Your task to perform on an android device: turn off translation in the chrome app Image 0: 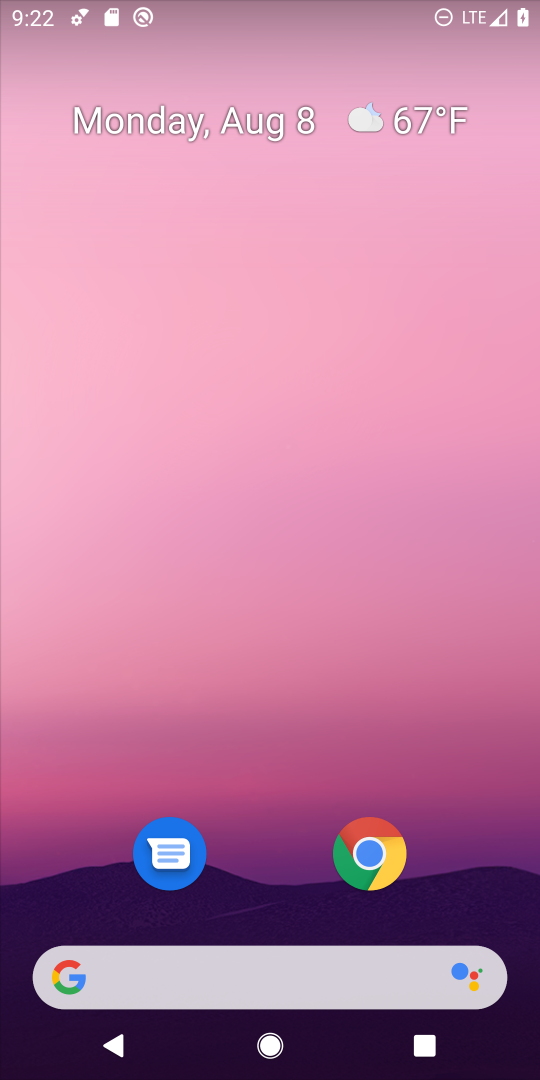
Step 0: click (373, 852)
Your task to perform on an android device: turn off translation in the chrome app Image 1: 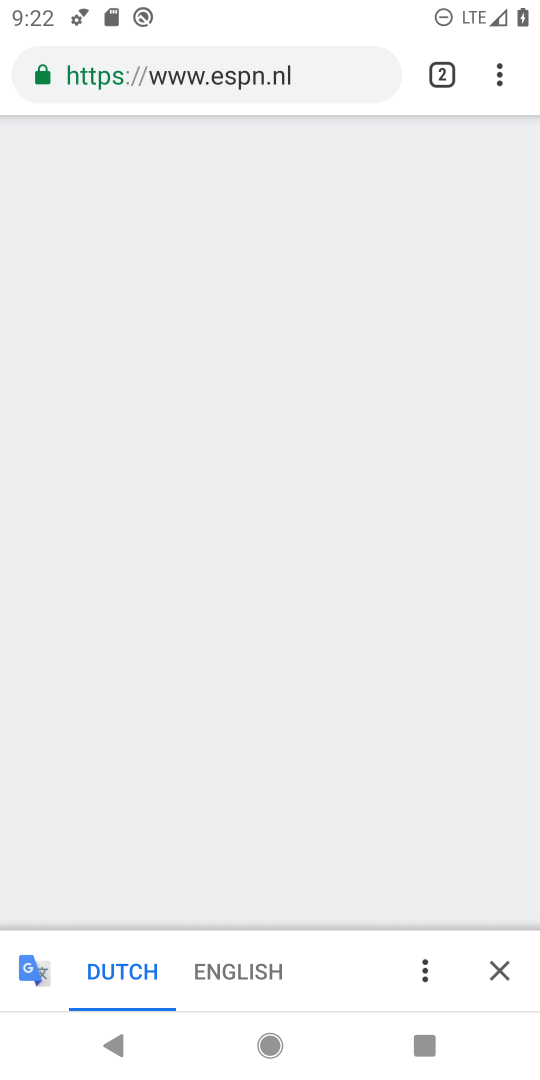
Step 1: click (525, 69)
Your task to perform on an android device: turn off translation in the chrome app Image 2: 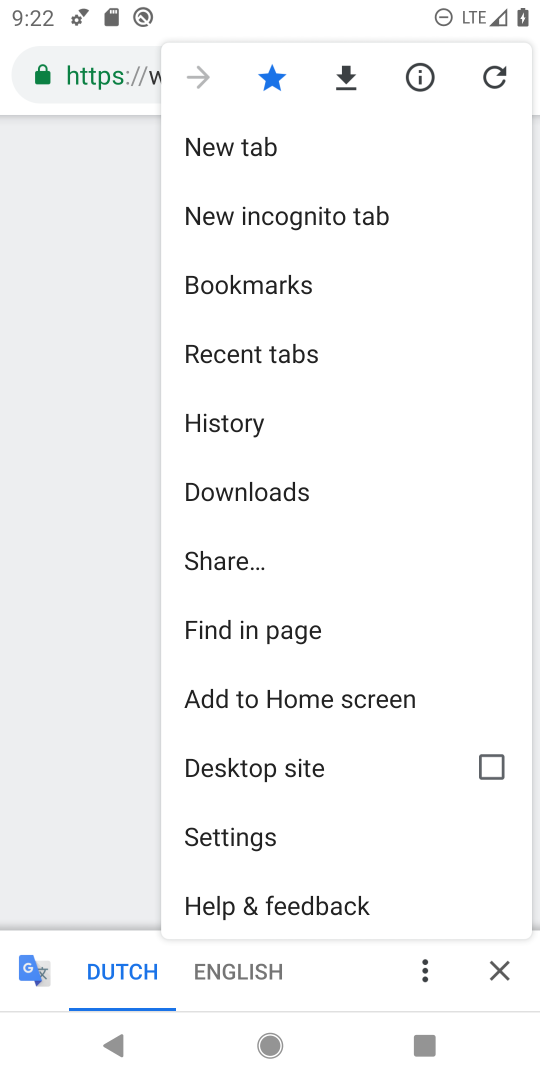
Step 2: click (263, 841)
Your task to perform on an android device: turn off translation in the chrome app Image 3: 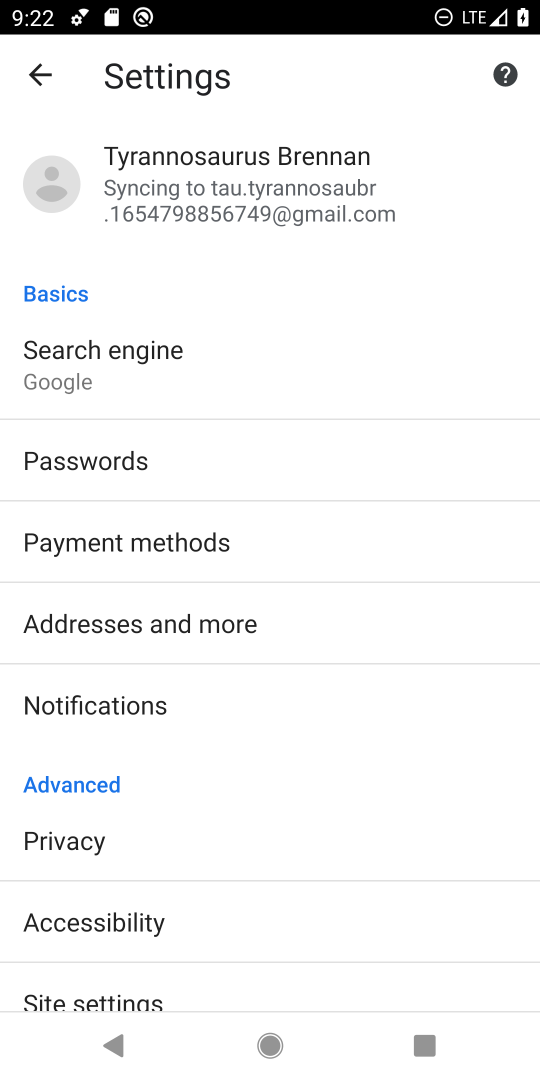
Step 3: drag from (370, 815) to (323, 522)
Your task to perform on an android device: turn off translation in the chrome app Image 4: 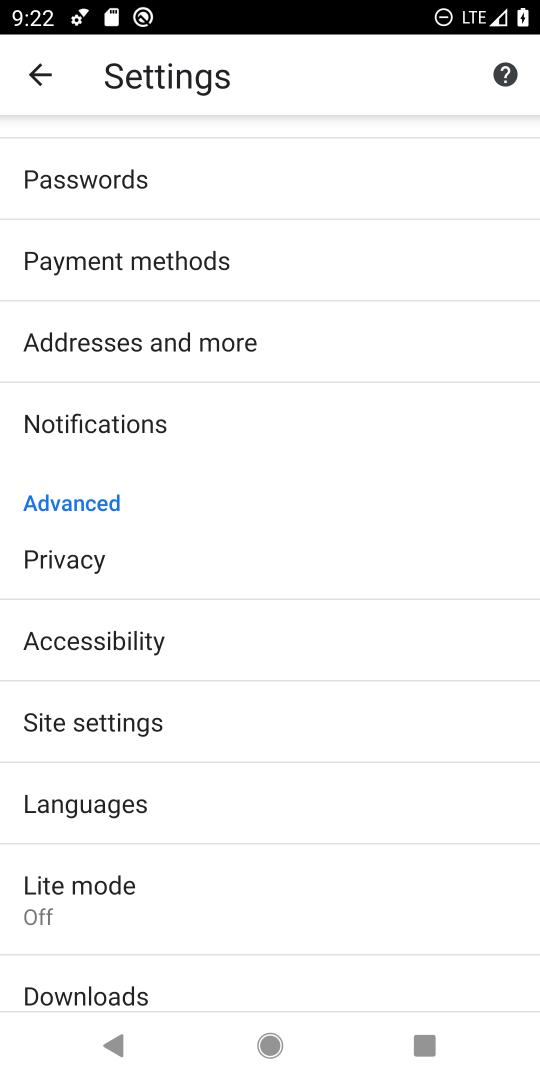
Step 4: click (86, 798)
Your task to perform on an android device: turn off translation in the chrome app Image 5: 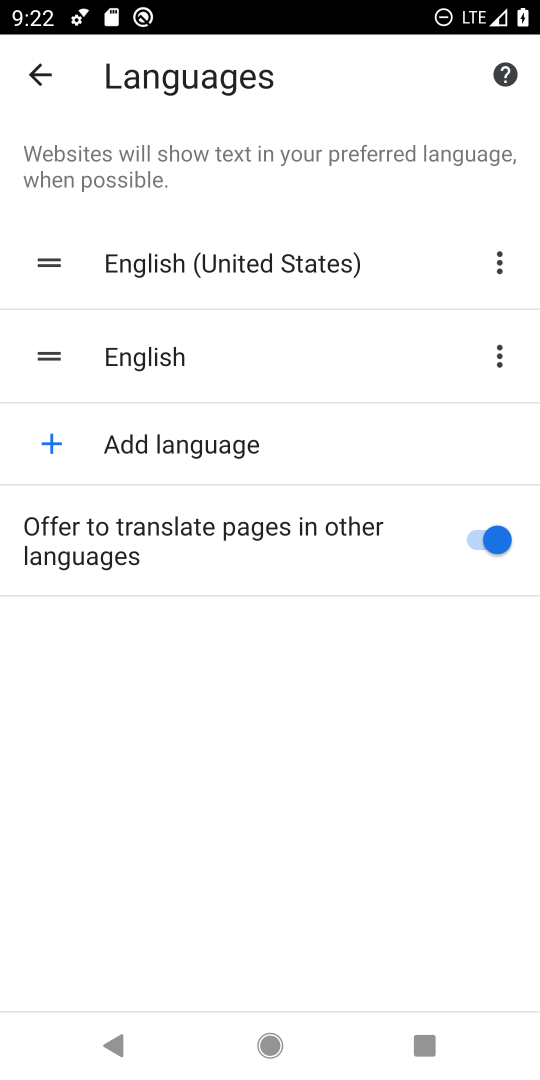
Step 5: click (494, 545)
Your task to perform on an android device: turn off translation in the chrome app Image 6: 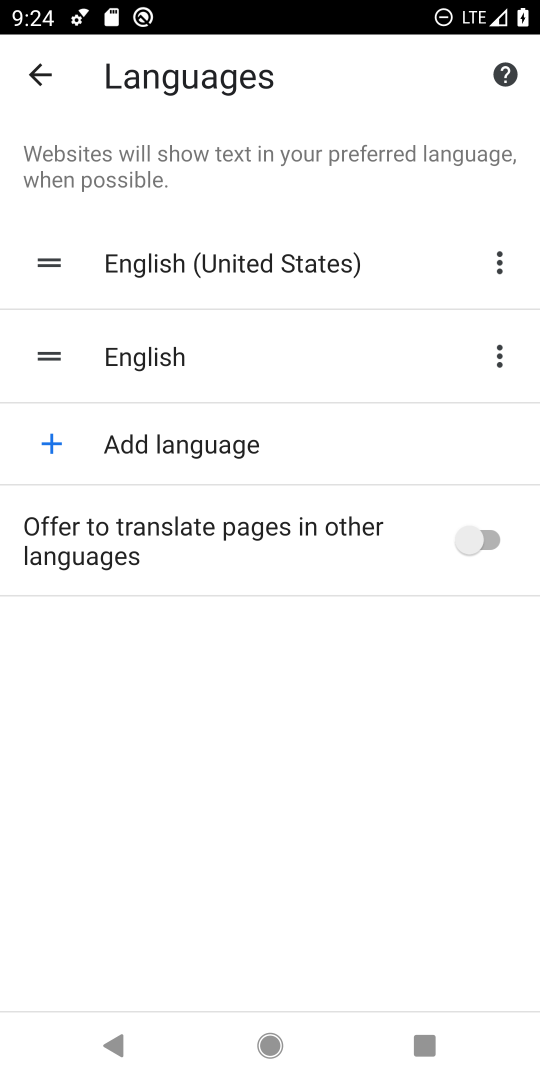
Step 6: task complete